Your task to perform on an android device: turn on the 12-hour format for clock Image 0: 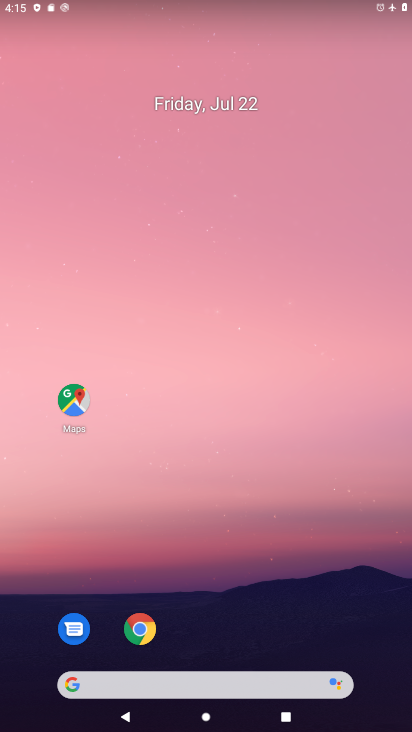
Step 0: drag from (330, 644) to (277, 80)
Your task to perform on an android device: turn on the 12-hour format for clock Image 1: 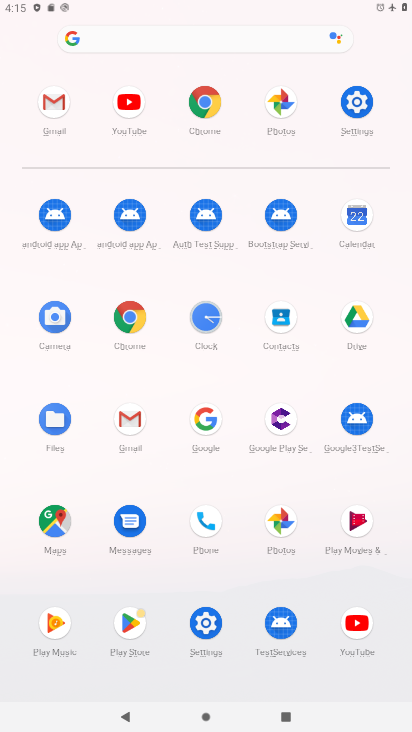
Step 1: click (203, 309)
Your task to perform on an android device: turn on the 12-hour format for clock Image 2: 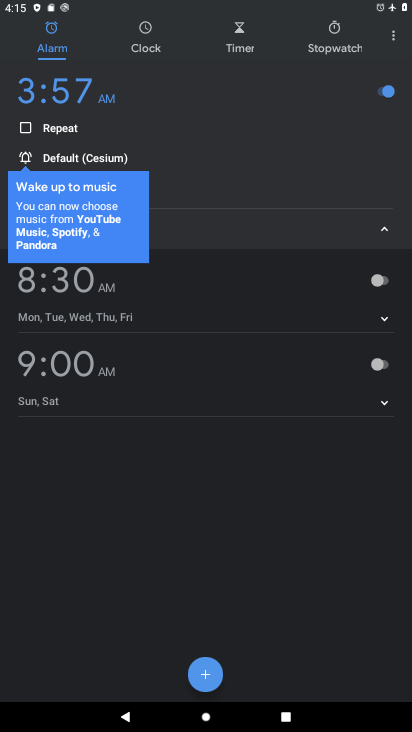
Step 2: click (402, 35)
Your task to perform on an android device: turn on the 12-hour format for clock Image 3: 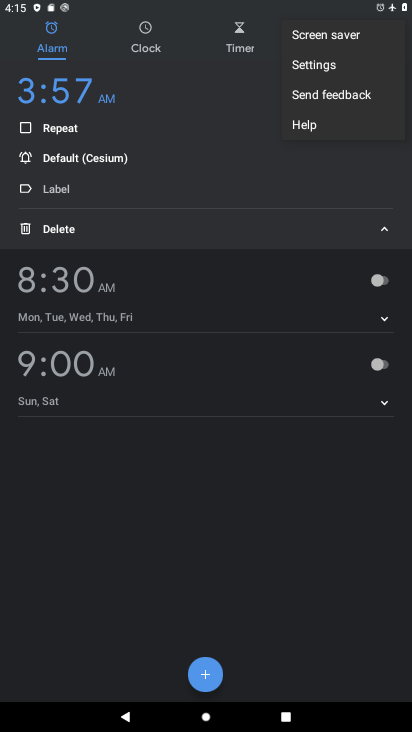
Step 3: click (321, 65)
Your task to perform on an android device: turn on the 12-hour format for clock Image 4: 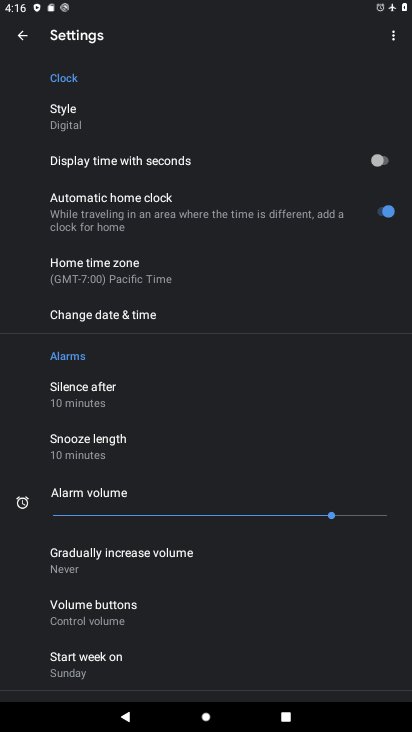
Step 4: click (85, 320)
Your task to perform on an android device: turn on the 12-hour format for clock Image 5: 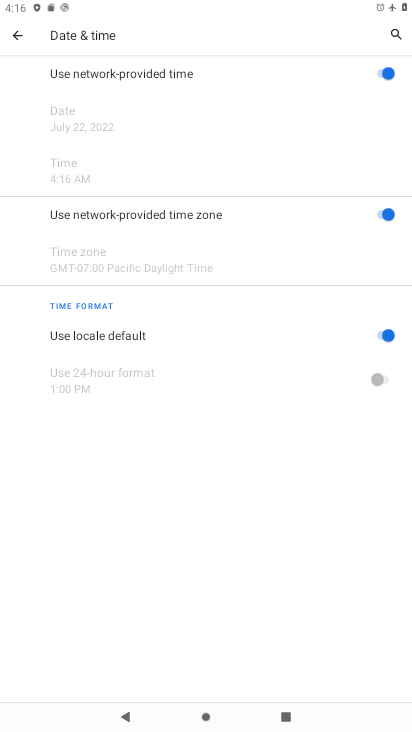
Step 5: task complete